Your task to perform on an android device: Open calendar and show me the third week of next month Image 0: 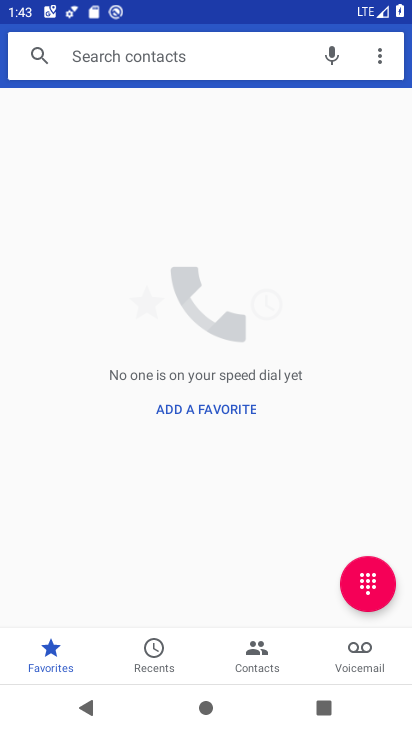
Step 0: press home button
Your task to perform on an android device: Open calendar and show me the third week of next month Image 1: 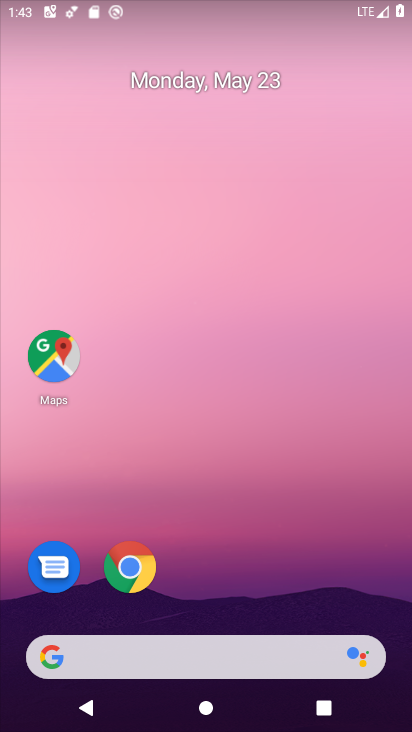
Step 1: drag from (214, 544) to (221, 274)
Your task to perform on an android device: Open calendar and show me the third week of next month Image 2: 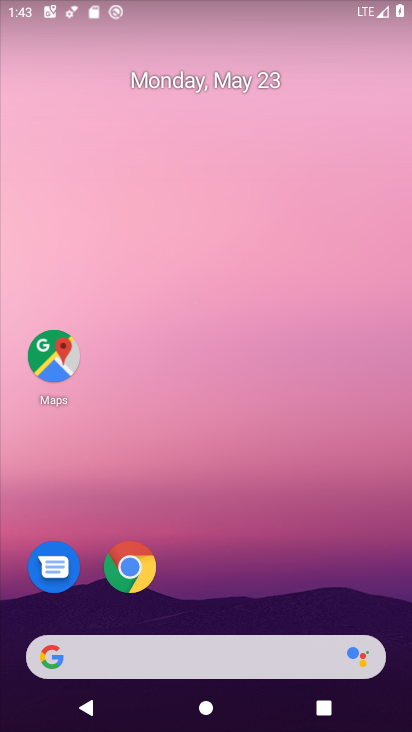
Step 2: drag from (263, 550) to (263, 209)
Your task to perform on an android device: Open calendar and show me the third week of next month Image 3: 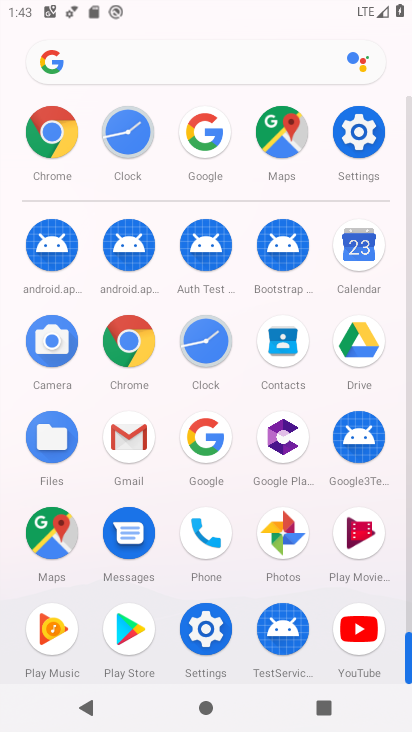
Step 3: click (370, 262)
Your task to perform on an android device: Open calendar and show me the third week of next month Image 4: 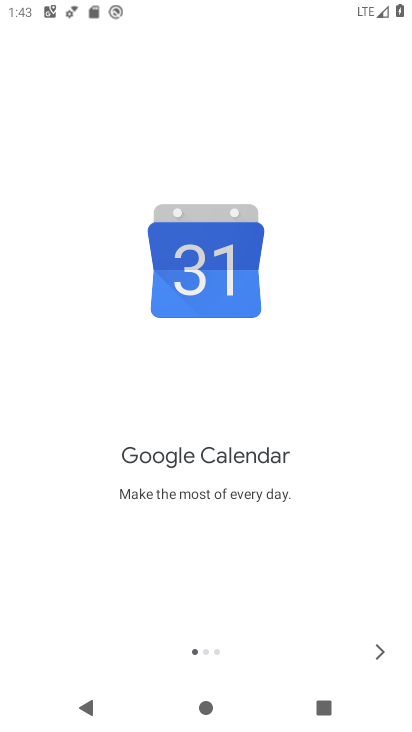
Step 4: click (374, 655)
Your task to perform on an android device: Open calendar and show me the third week of next month Image 5: 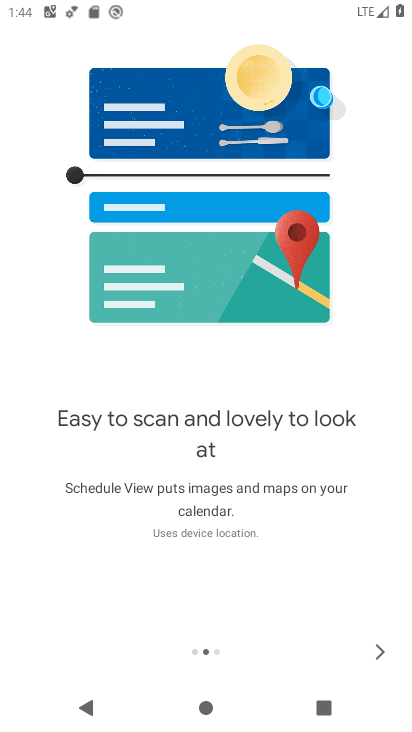
Step 5: click (374, 655)
Your task to perform on an android device: Open calendar and show me the third week of next month Image 6: 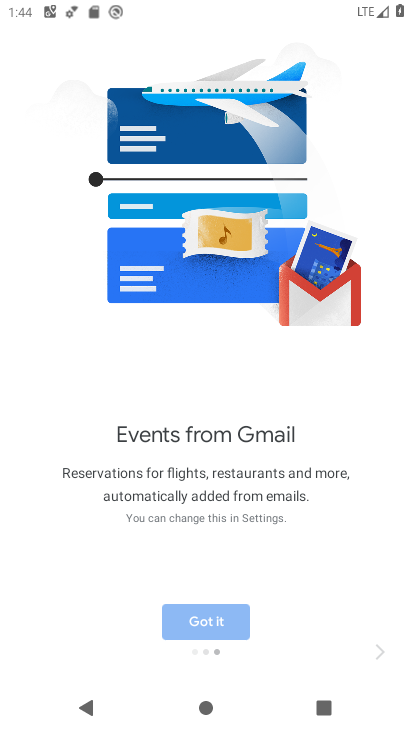
Step 6: click (374, 655)
Your task to perform on an android device: Open calendar and show me the third week of next month Image 7: 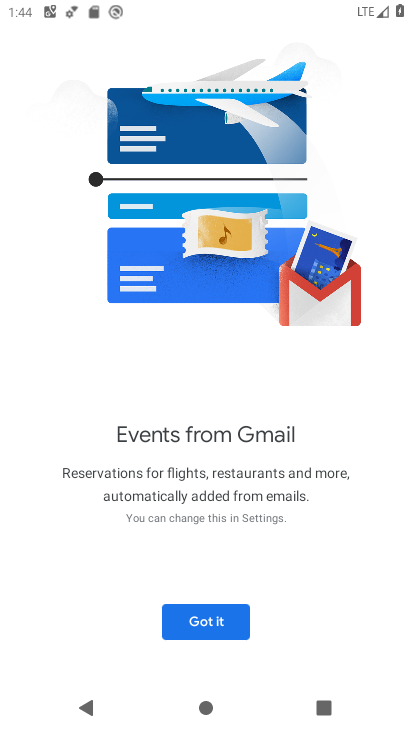
Step 7: click (220, 635)
Your task to perform on an android device: Open calendar and show me the third week of next month Image 8: 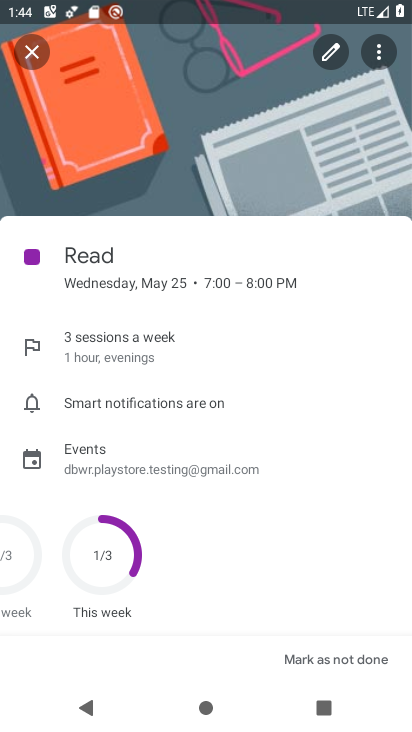
Step 8: click (28, 63)
Your task to perform on an android device: Open calendar and show me the third week of next month Image 9: 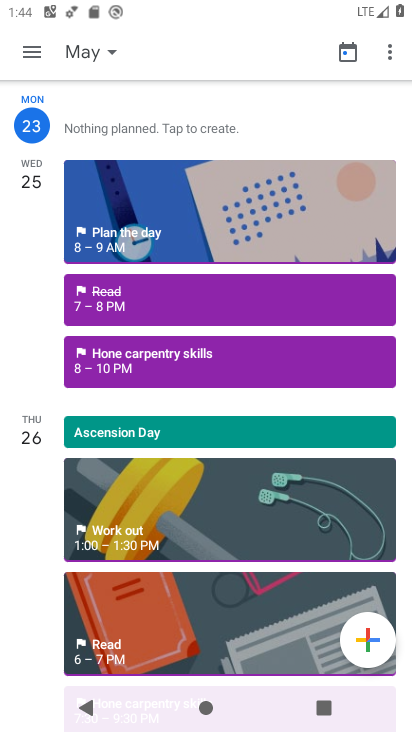
Step 9: click (106, 57)
Your task to perform on an android device: Open calendar and show me the third week of next month Image 10: 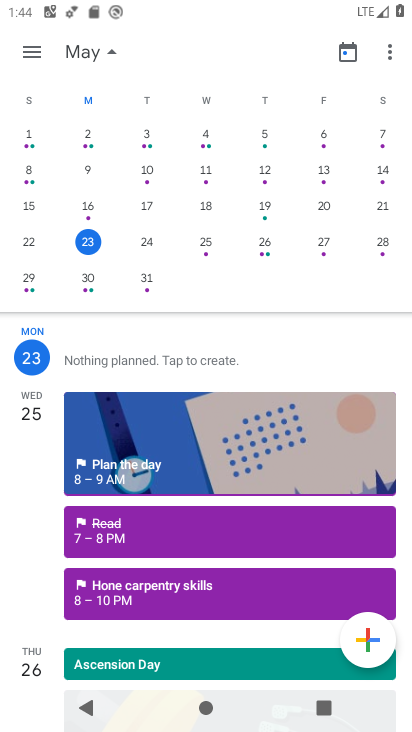
Step 10: drag from (319, 208) to (0, 216)
Your task to perform on an android device: Open calendar and show me the third week of next month Image 11: 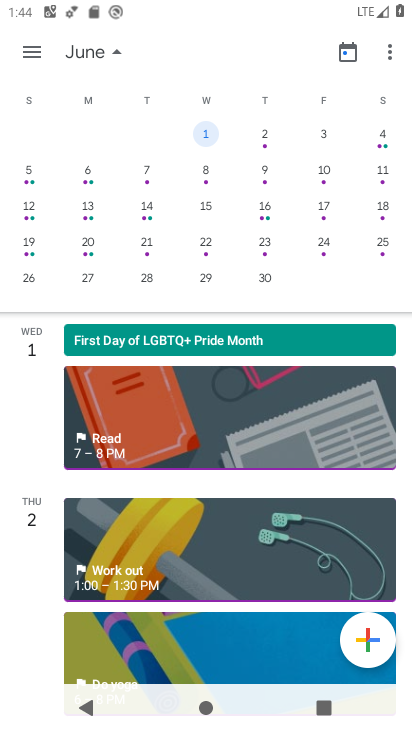
Step 11: click (25, 210)
Your task to perform on an android device: Open calendar and show me the third week of next month Image 12: 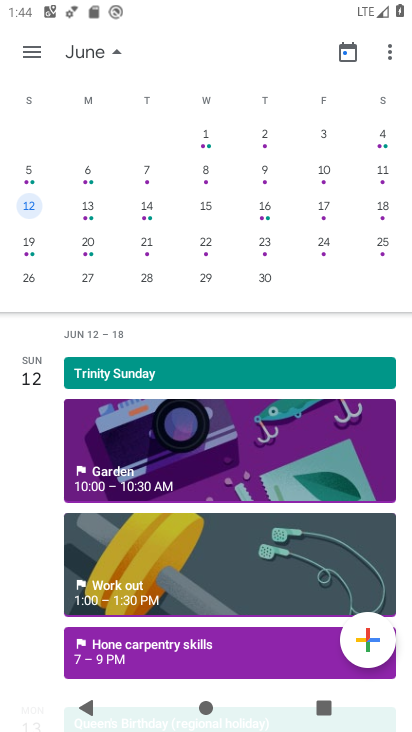
Step 12: click (107, 56)
Your task to perform on an android device: Open calendar and show me the third week of next month Image 13: 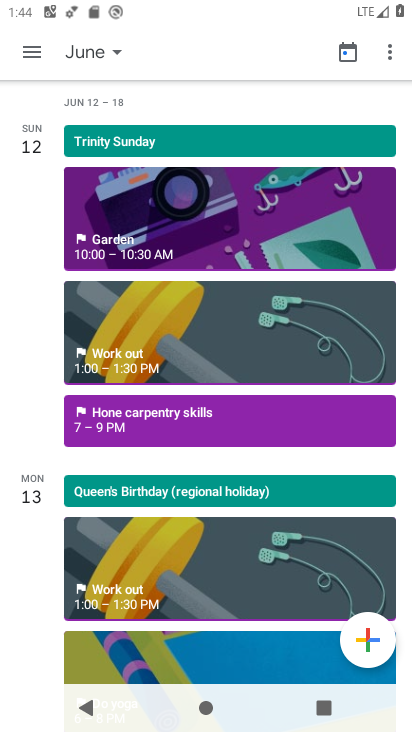
Step 13: click (32, 53)
Your task to perform on an android device: Open calendar and show me the third week of next month Image 14: 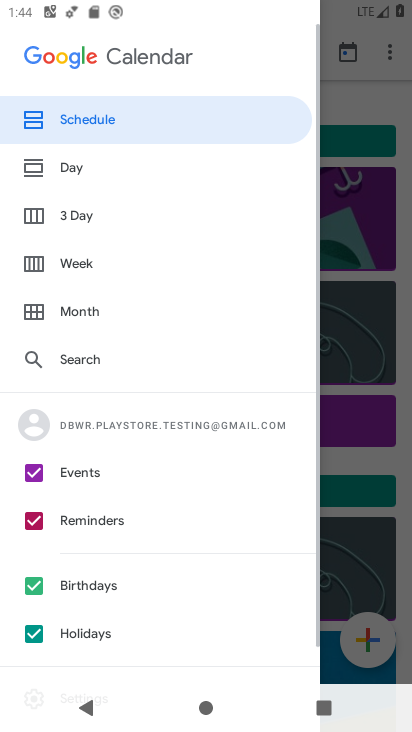
Step 14: click (90, 271)
Your task to perform on an android device: Open calendar and show me the third week of next month Image 15: 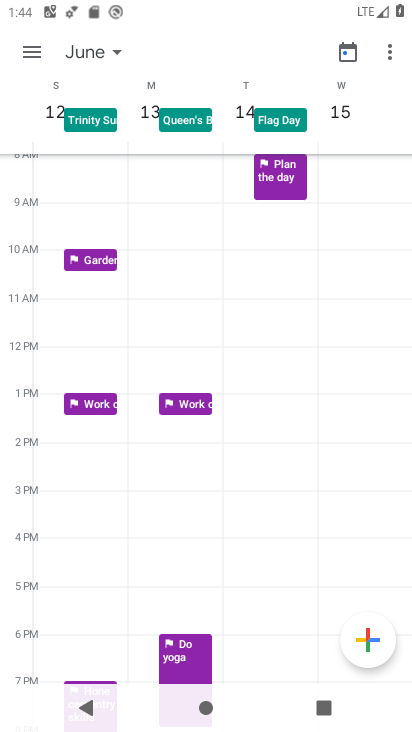
Step 15: task complete